Your task to perform on an android device: Search for seafood restaurants on Google Maps Image 0: 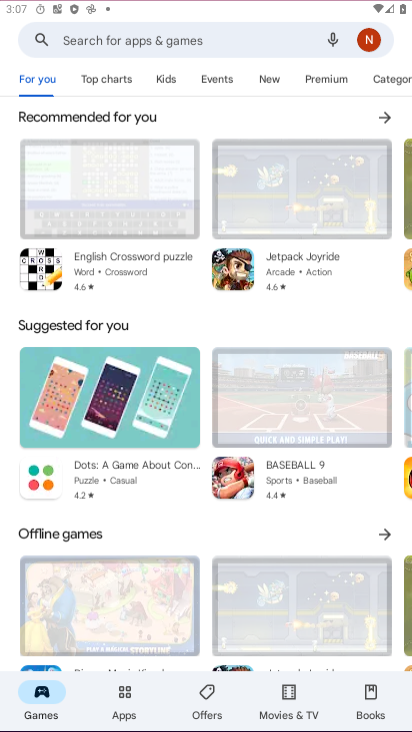
Step 0: drag from (211, 653) to (178, 303)
Your task to perform on an android device: Search for seafood restaurants on Google Maps Image 1: 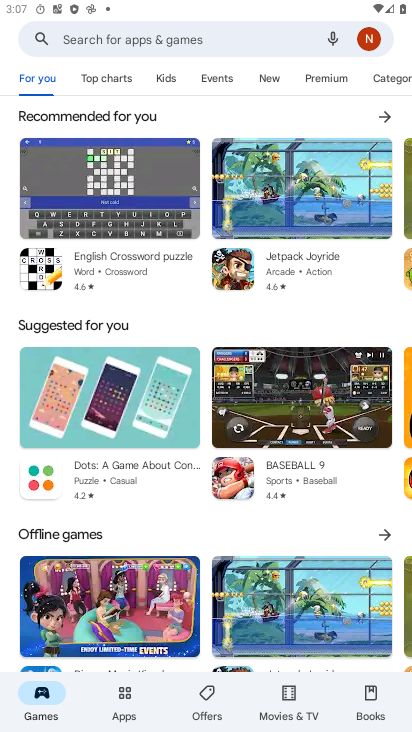
Step 1: press home button
Your task to perform on an android device: Search for seafood restaurants on Google Maps Image 2: 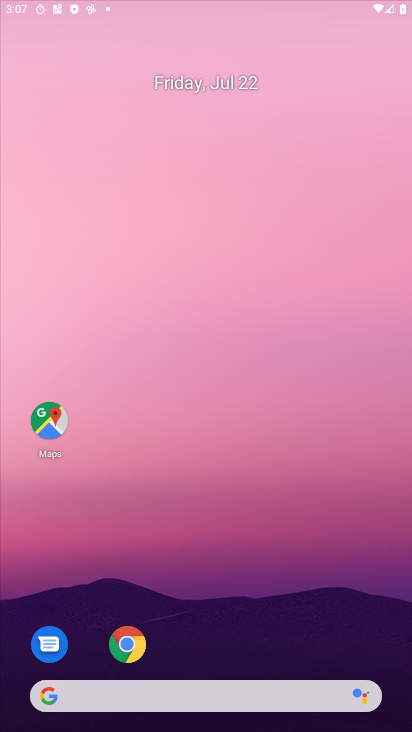
Step 2: drag from (198, 714) to (222, 388)
Your task to perform on an android device: Search for seafood restaurants on Google Maps Image 3: 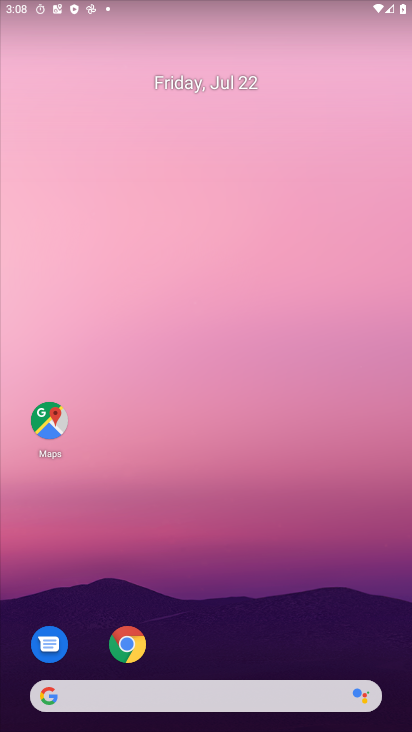
Step 3: drag from (227, 517) to (227, 129)
Your task to perform on an android device: Search for seafood restaurants on Google Maps Image 4: 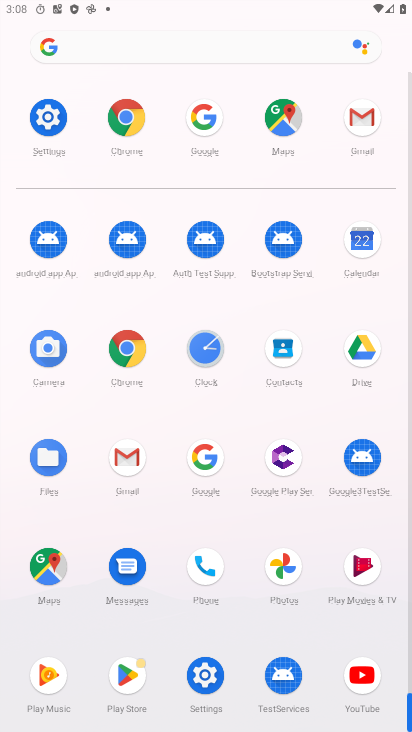
Step 4: click (49, 575)
Your task to perform on an android device: Search for seafood restaurants on Google Maps Image 5: 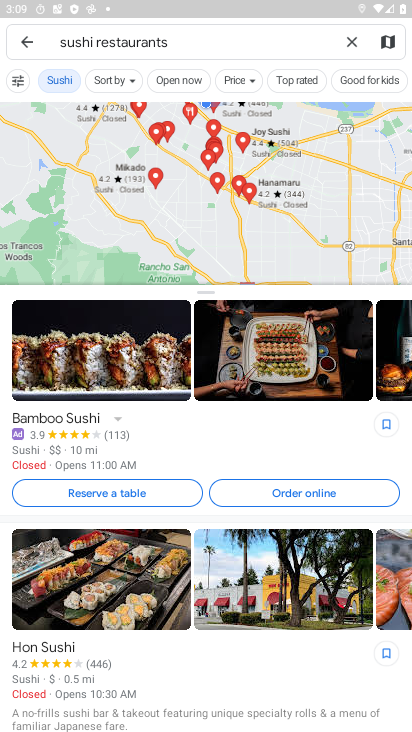
Step 5: click (353, 46)
Your task to perform on an android device: Search for seafood restaurants on Google Maps Image 6: 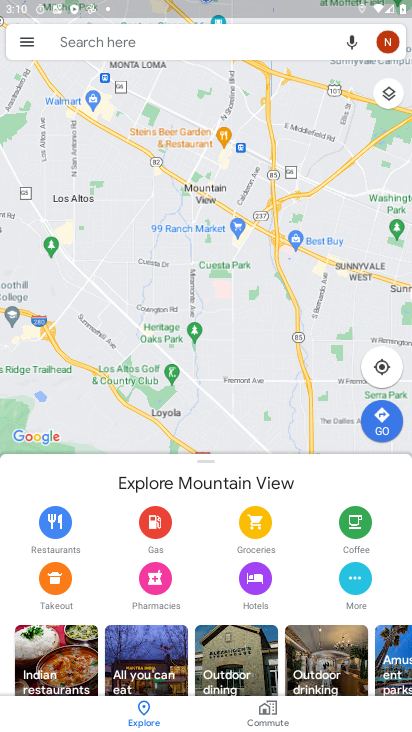
Step 6: click (278, 39)
Your task to perform on an android device: Search for seafood restaurants on Google Maps Image 7: 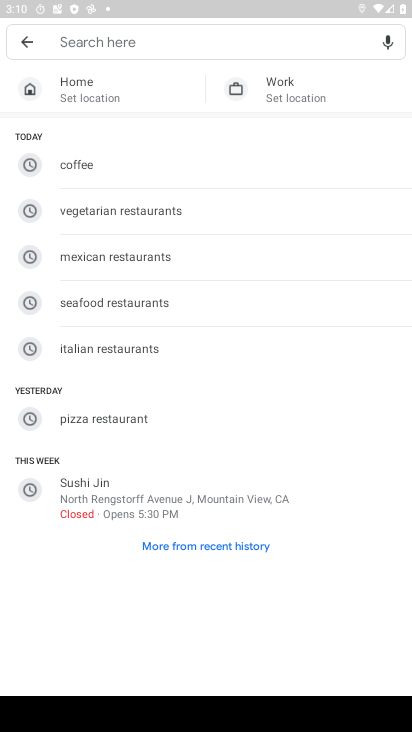
Step 7: click (140, 296)
Your task to perform on an android device: Search for seafood restaurants on Google Maps Image 8: 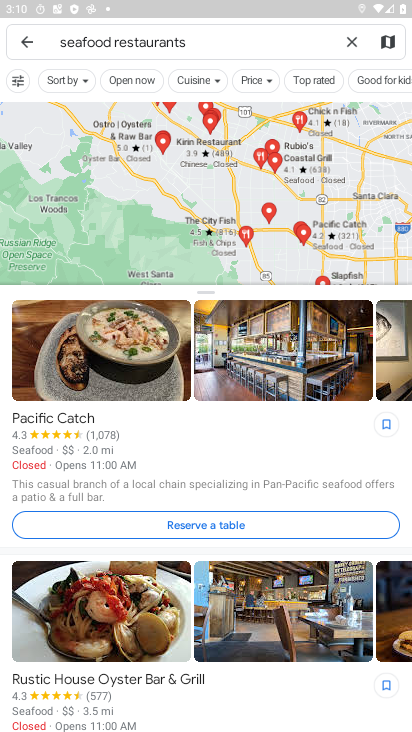
Step 8: task complete